Your task to perform on an android device: Search for flights from Buenos aires to Helsinki Image 0: 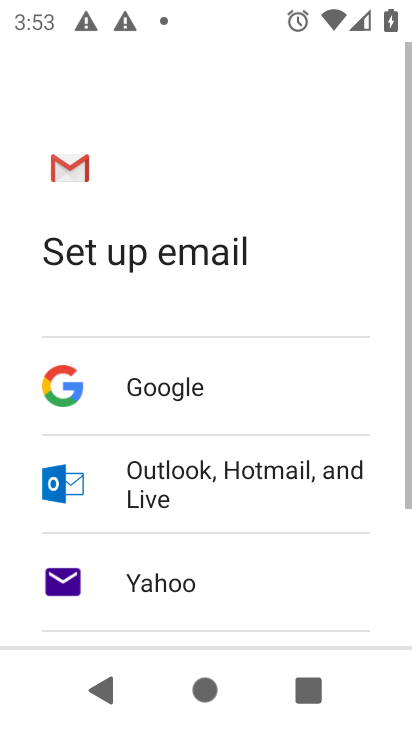
Step 0: press home button
Your task to perform on an android device: Search for flights from Buenos aires to Helsinki Image 1: 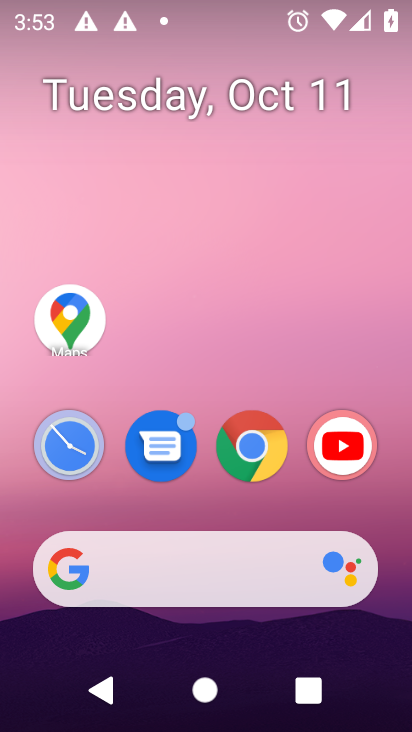
Step 1: click (257, 457)
Your task to perform on an android device: Search for flights from Buenos aires to Helsinki Image 2: 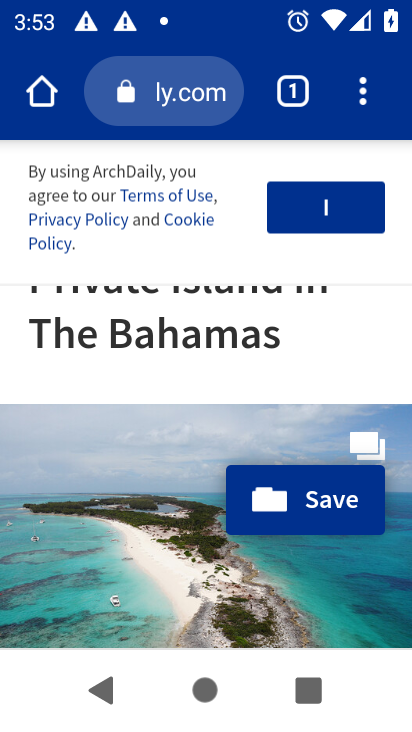
Step 2: click (187, 102)
Your task to perform on an android device: Search for flights from Buenos aires to Helsinki Image 3: 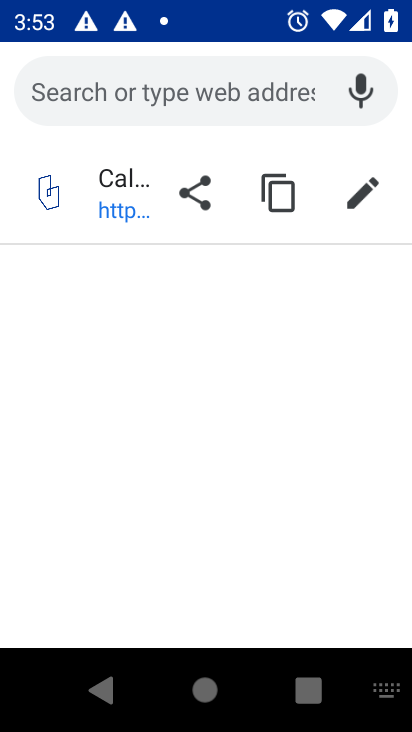
Step 3: type "Buenos aires to Helsinki flights"
Your task to perform on an android device: Search for flights from Buenos aires to Helsinki Image 4: 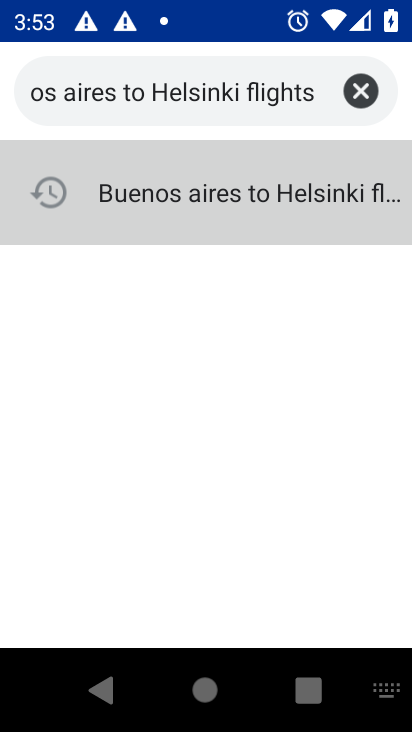
Step 4: click (251, 205)
Your task to perform on an android device: Search for flights from Buenos aires to Helsinki Image 5: 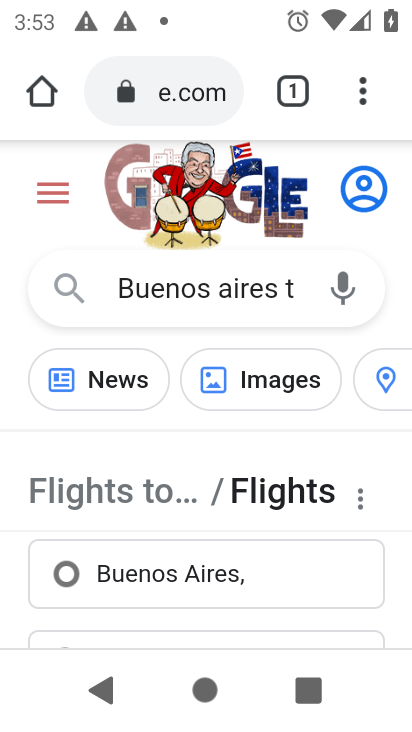
Step 5: task complete